Your task to perform on an android device: turn off location history Image 0: 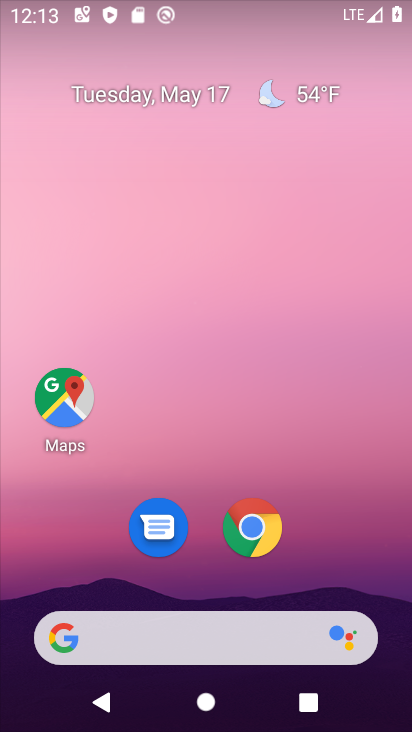
Step 0: drag from (216, 683) to (223, 105)
Your task to perform on an android device: turn off location history Image 1: 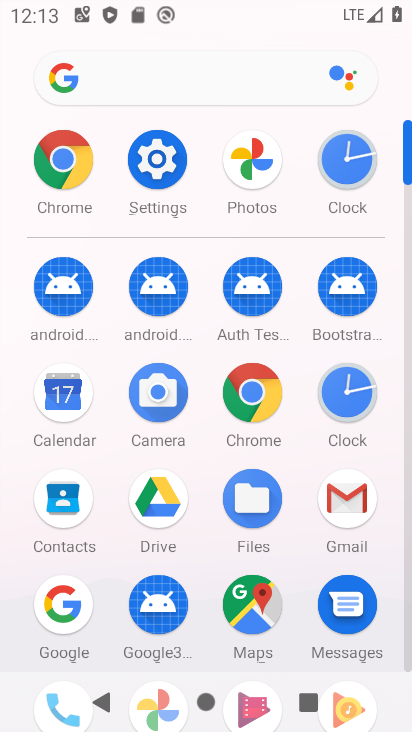
Step 1: click (148, 164)
Your task to perform on an android device: turn off location history Image 2: 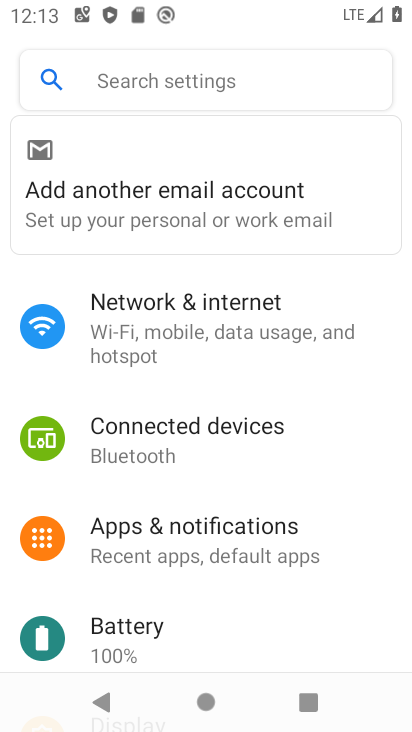
Step 2: click (144, 82)
Your task to perform on an android device: turn off location history Image 3: 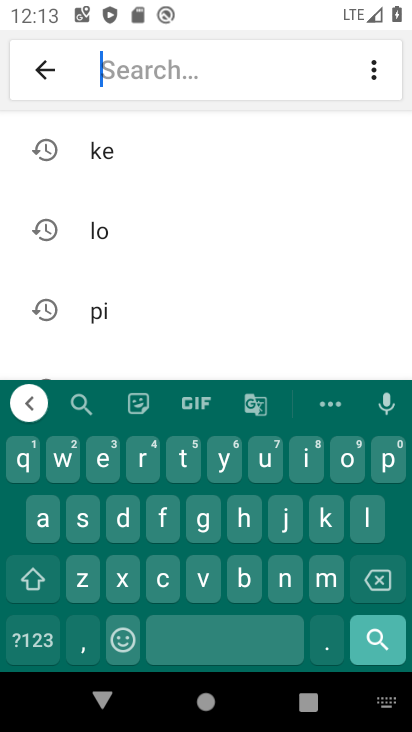
Step 3: click (110, 244)
Your task to perform on an android device: turn off location history Image 4: 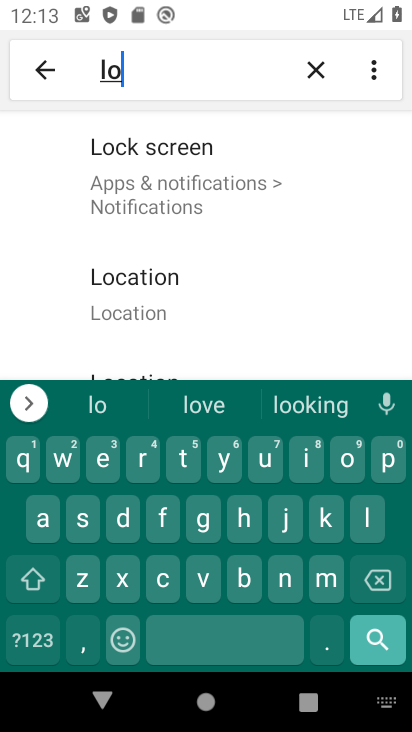
Step 4: click (137, 306)
Your task to perform on an android device: turn off location history Image 5: 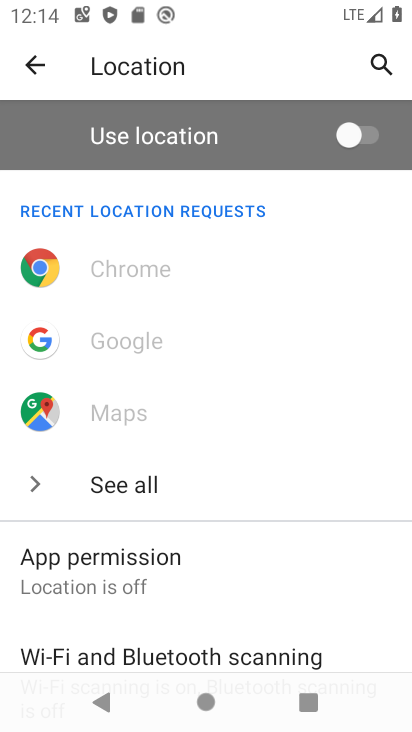
Step 5: drag from (116, 566) to (176, 329)
Your task to perform on an android device: turn off location history Image 6: 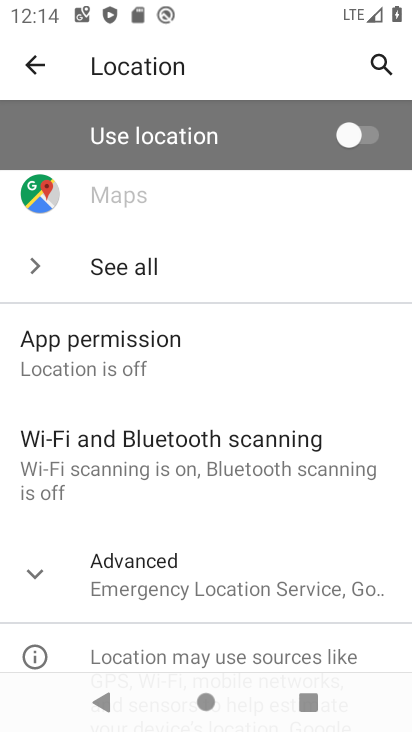
Step 6: click (65, 572)
Your task to perform on an android device: turn off location history Image 7: 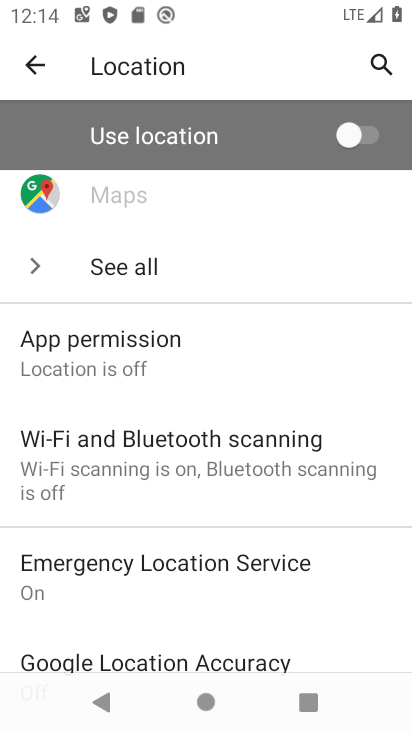
Step 7: drag from (200, 636) to (256, 383)
Your task to perform on an android device: turn off location history Image 8: 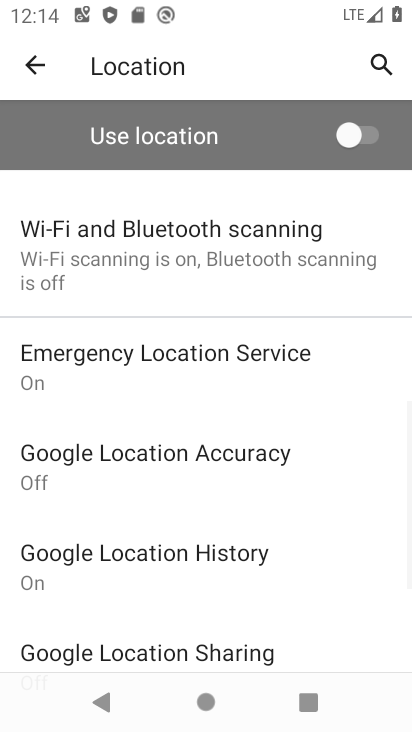
Step 8: click (179, 567)
Your task to perform on an android device: turn off location history Image 9: 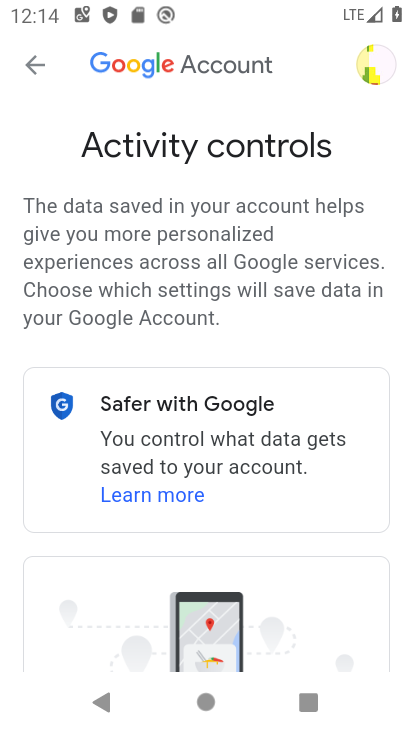
Step 9: drag from (266, 495) to (264, 231)
Your task to perform on an android device: turn off location history Image 10: 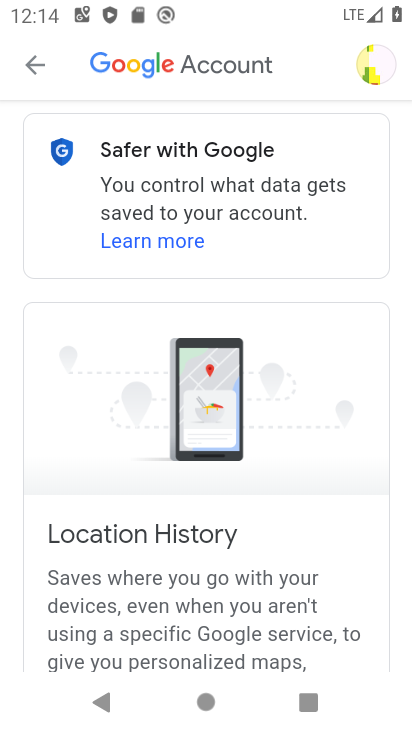
Step 10: drag from (225, 554) to (256, 223)
Your task to perform on an android device: turn off location history Image 11: 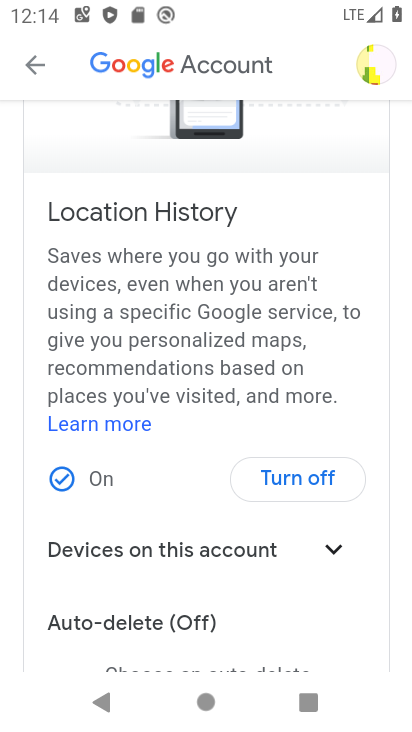
Step 11: click (308, 479)
Your task to perform on an android device: turn off location history Image 12: 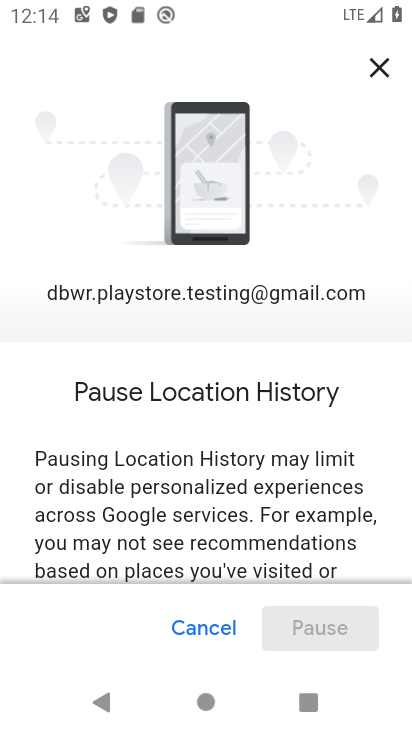
Step 12: task complete